Your task to perform on an android device: Open Google Maps and go to "Timeline" Image 0: 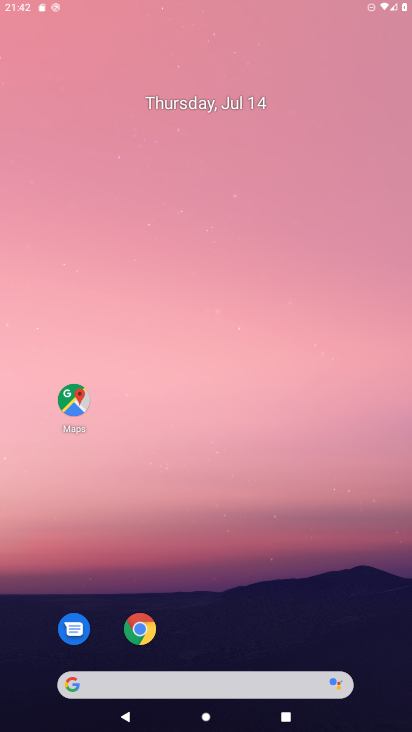
Step 0: click (259, 203)
Your task to perform on an android device: Open Google Maps and go to "Timeline" Image 1: 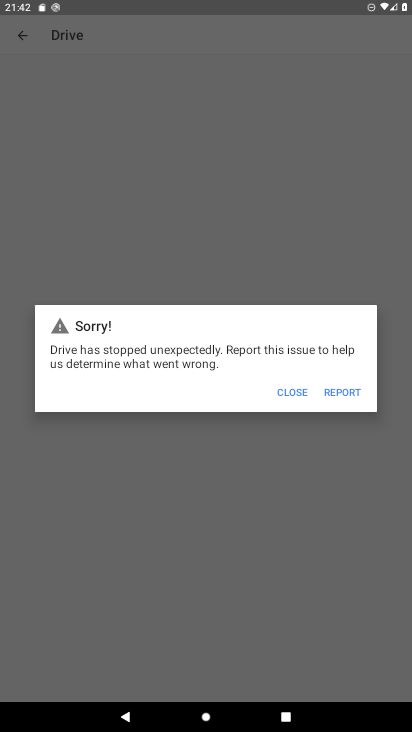
Step 1: click (291, 397)
Your task to perform on an android device: Open Google Maps and go to "Timeline" Image 2: 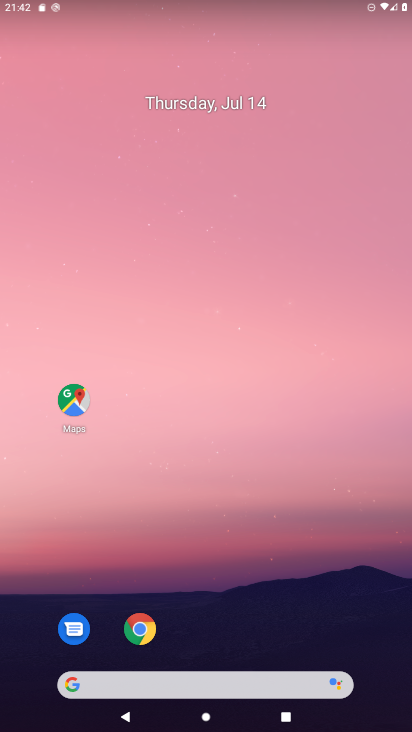
Step 2: drag from (252, 659) to (244, 308)
Your task to perform on an android device: Open Google Maps and go to "Timeline" Image 3: 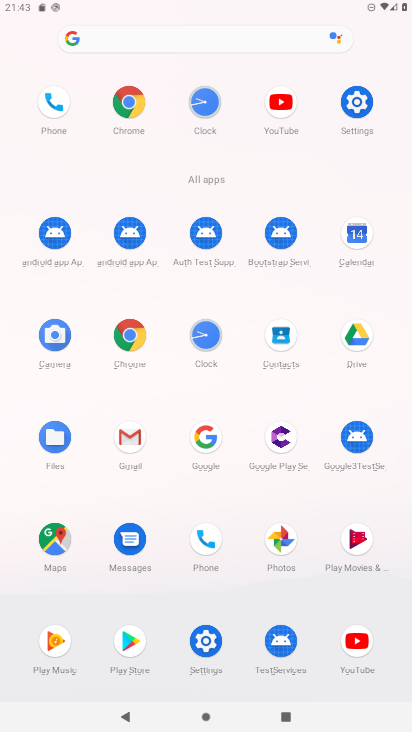
Step 3: click (52, 538)
Your task to perform on an android device: Open Google Maps and go to "Timeline" Image 4: 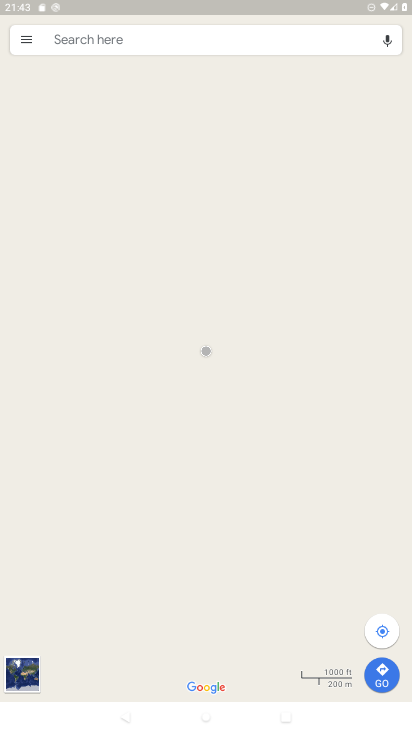
Step 4: click (23, 38)
Your task to perform on an android device: Open Google Maps and go to "Timeline" Image 5: 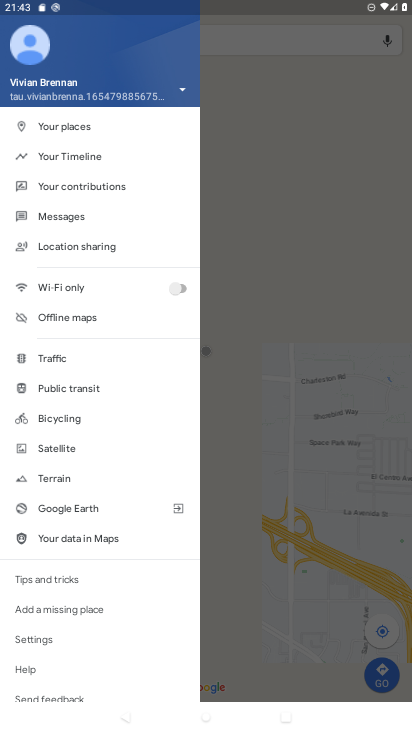
Step 5: click (78, 154)
Your task to perform on an android device: Open Google Maps and go to "Timeline" Image 6: 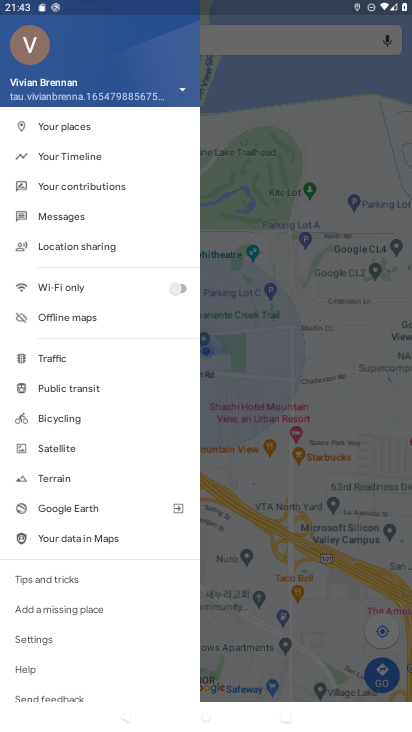
Step 6: click (93, 152)
Your task to perform on an android device: Open Google Maps and go to "Timeline" Image 7: 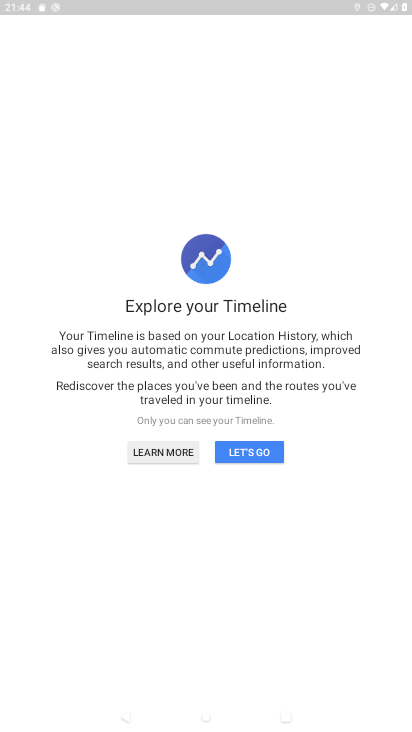
Step 7: click (252, 448)
Your task to perform on an android device: Open Google Maps and go to "Timeline" Image 8: 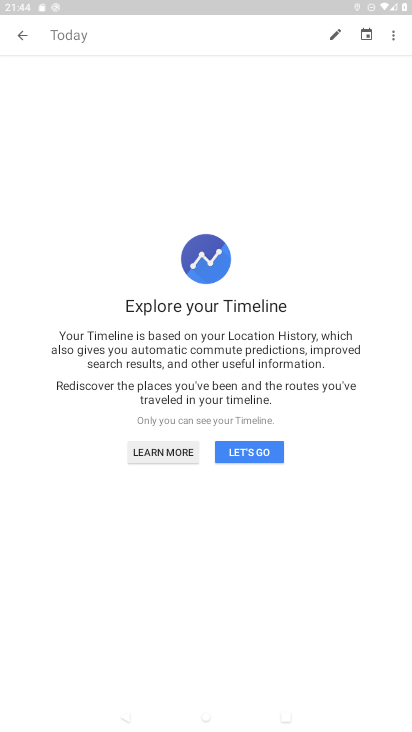
Step 8: task complete